Your task to perform on an android device: Open Chrome and go to the settings page Image 0: 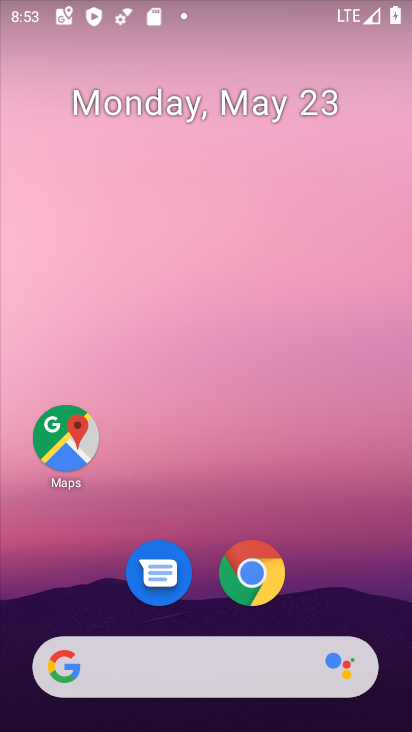
Step 0: click (258, 571)
Your task to perform on an android device: Open Chrome and go to the settings page Image 1: 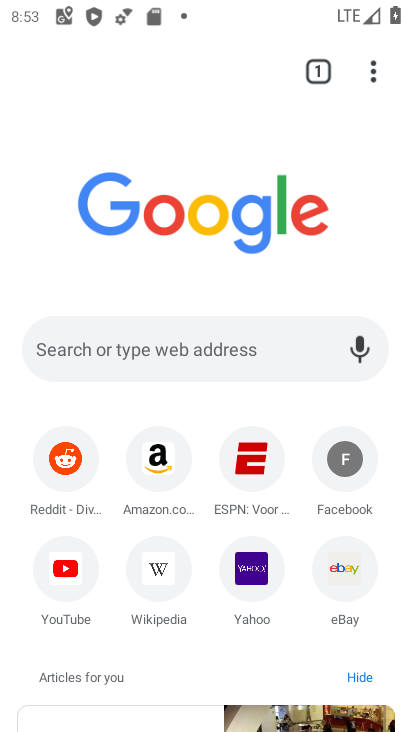
Step 1: click (371, 73)
Your task to perform on an android device: Open Chrome and go to the settings page Image 2: 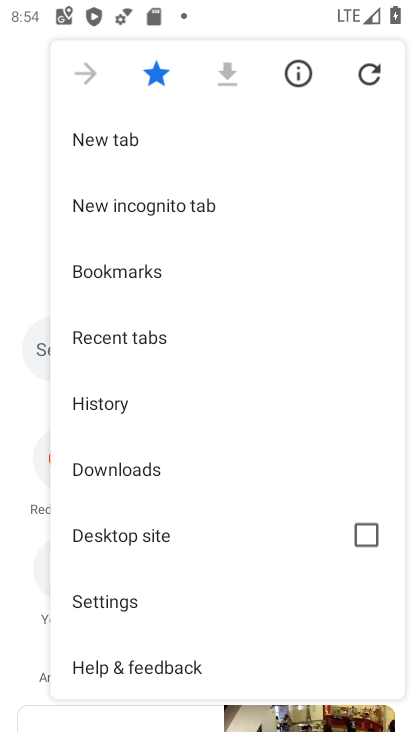
Step 2: click (133, 600)
Your task to perform on an android device: Open Chrome and go to the settings page Image 3: 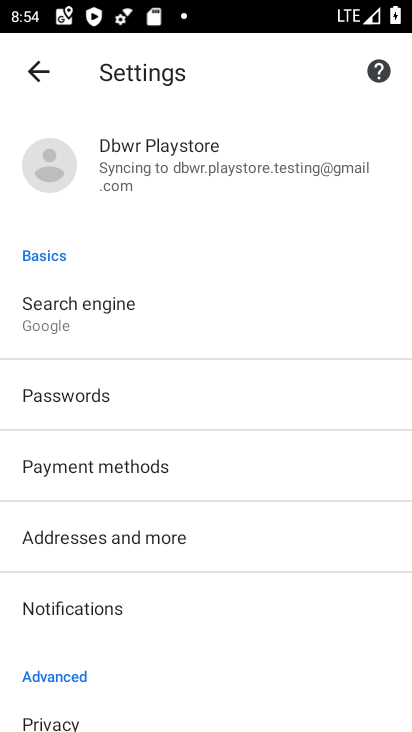
Step 3: task complete